Your task to perform on an android device: Go to CNN.com Image 0: 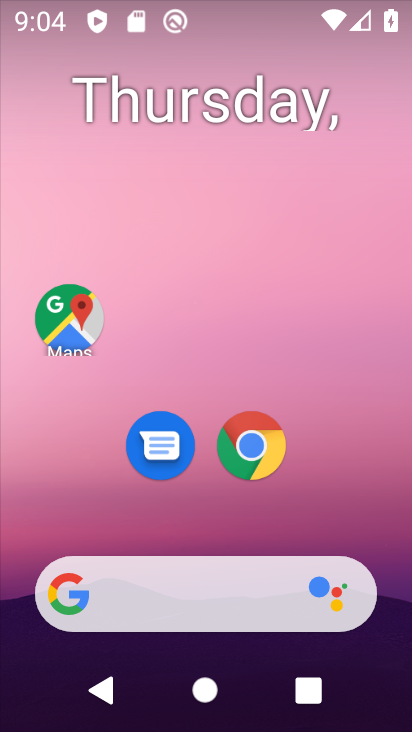
Step 0: drag from (216, 485) to (225, 248)
Your task to perform on an android device: Go to CNN.com Image 1: 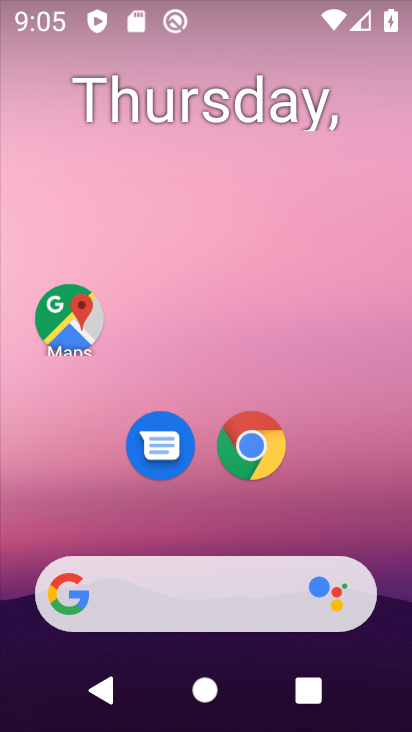
Step 1: drag from (185, 507) to (309, 195)
Your task to perform on an android device: Go to CNN.com Image 2: 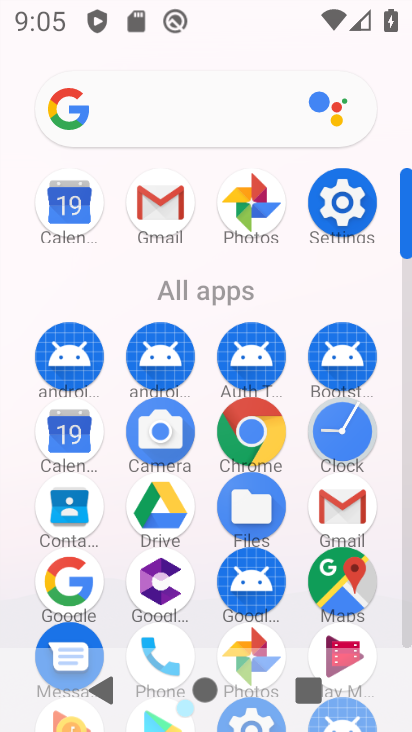
Step 2: click (213, 102)
Your task to perform on an android device: Go to CNN.com Image 3: 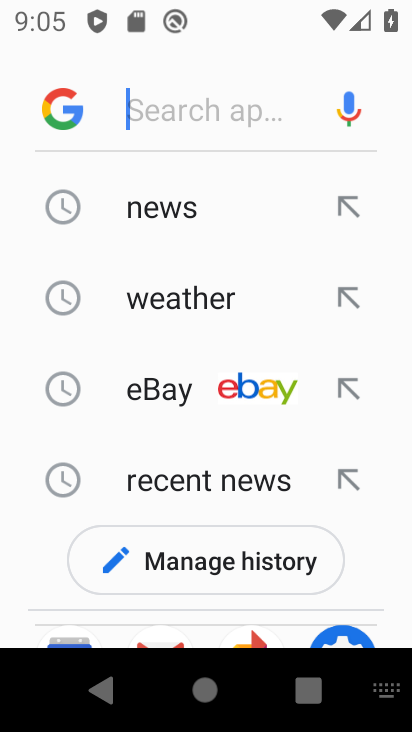
Step 3: type "CNN.com"
Your task to perform on an android device: Go to CNN.com Image 4: 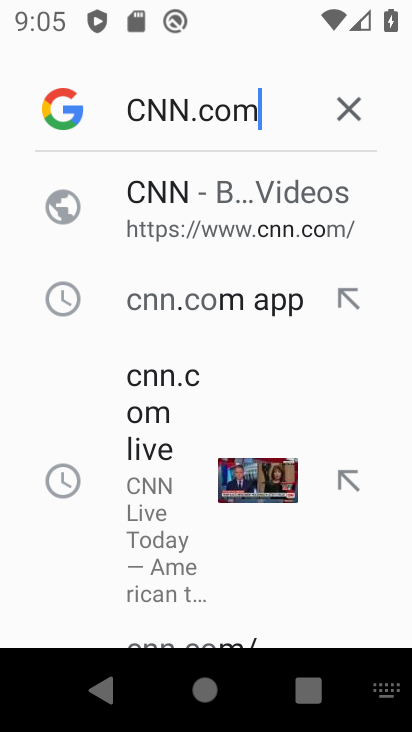
Step 4: type ""
Your task to perform on an android device: Go to CNN.com Image 5: 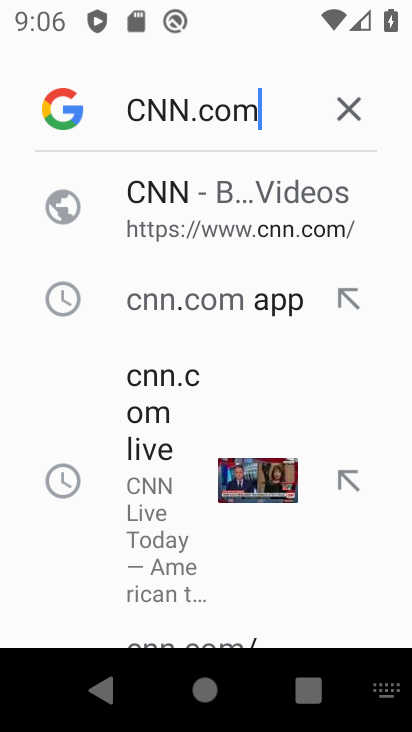
Step 5: click (328, 390)
Your task to perform on an android device: Go to CNN.com Image 6: 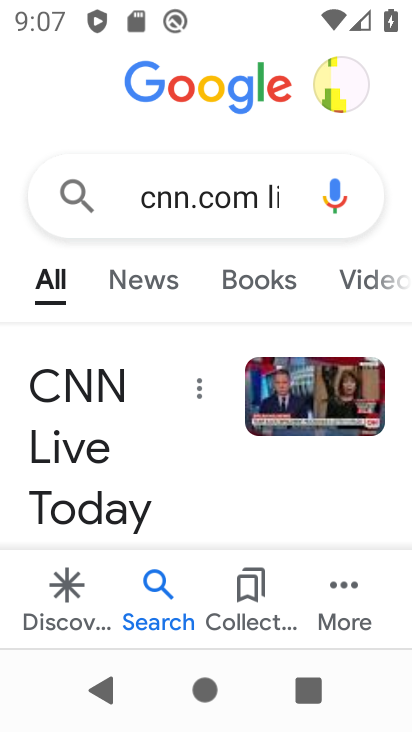
Step 6: task complete